Your task to perform on an android device: Open Youtube and go to the subscriptions tab Image 0: 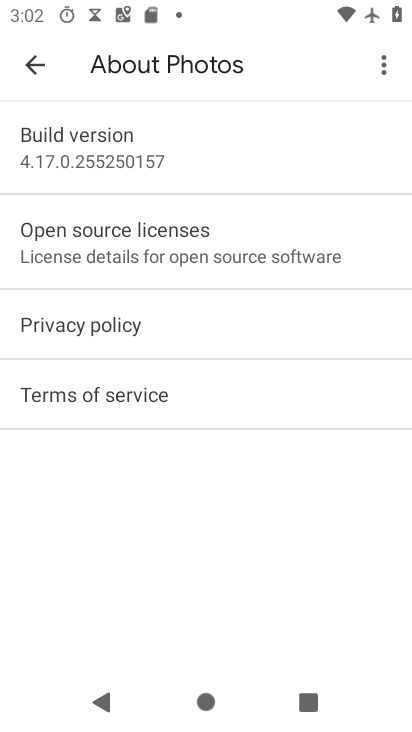
Step 0: press home button
Your task to perform on an android device: Open Youtube and go to the subscriptions tab Image 1: 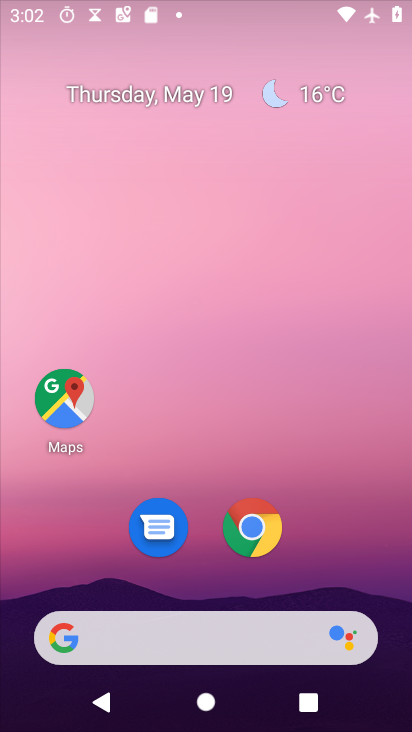
Step 1: click (245, 512)
Your task to perform on an android device: Open Youtube and go to the subscriptions tab Image 2: 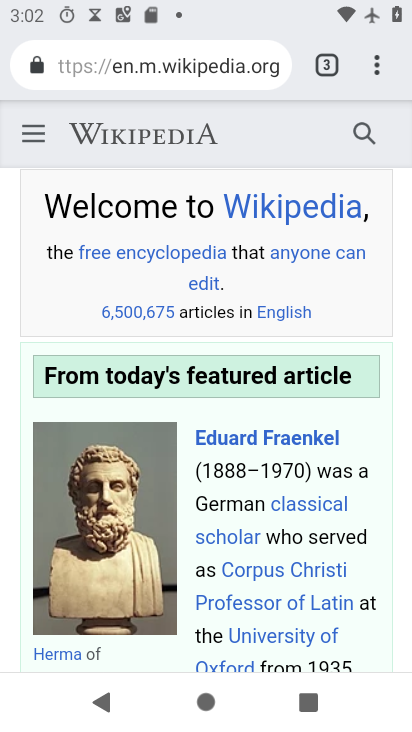
Step 2: click (323, 55)
Your task to perform on an android device: Open Youtube and go to the subscriptions tab Image 3: 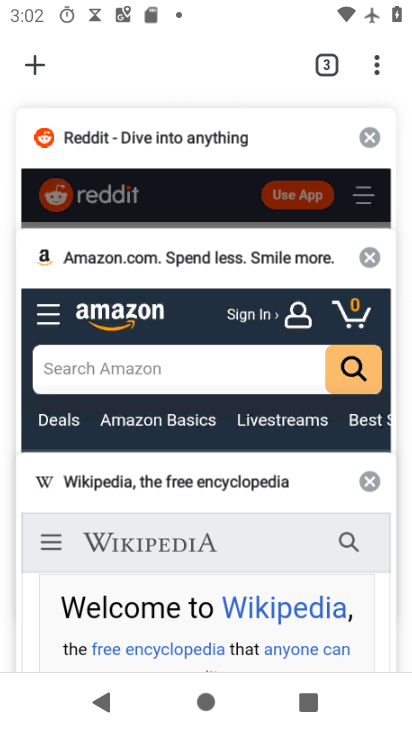
Step 3: click (166, 151)
Your task to perform on an android device: Open Youtube and go to the subscriptions tab Image 4: 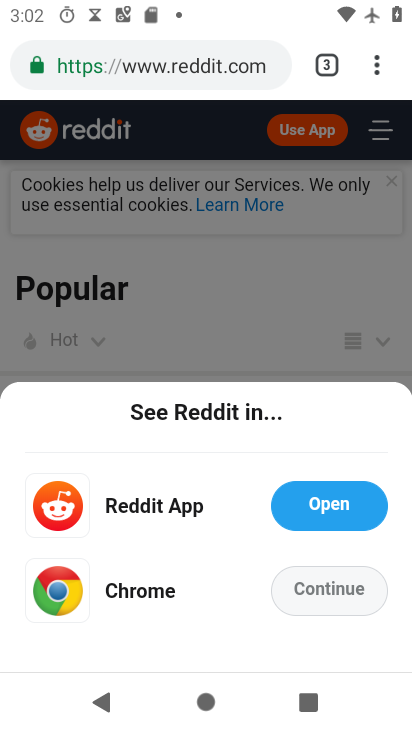
Step 4: task complete